Your task to perform on an android device: read, delete, or share a saved page in the chrome app Image 0: 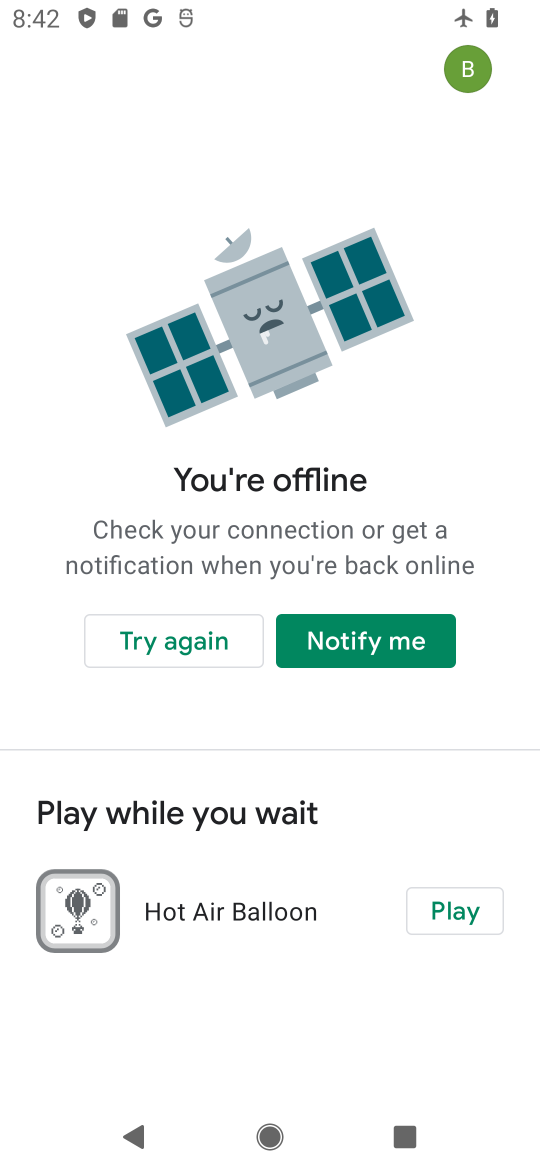
Step 0: press home button
Your task to perform on an android device: read, delete, or share a saved page in the chrome app Image 1: 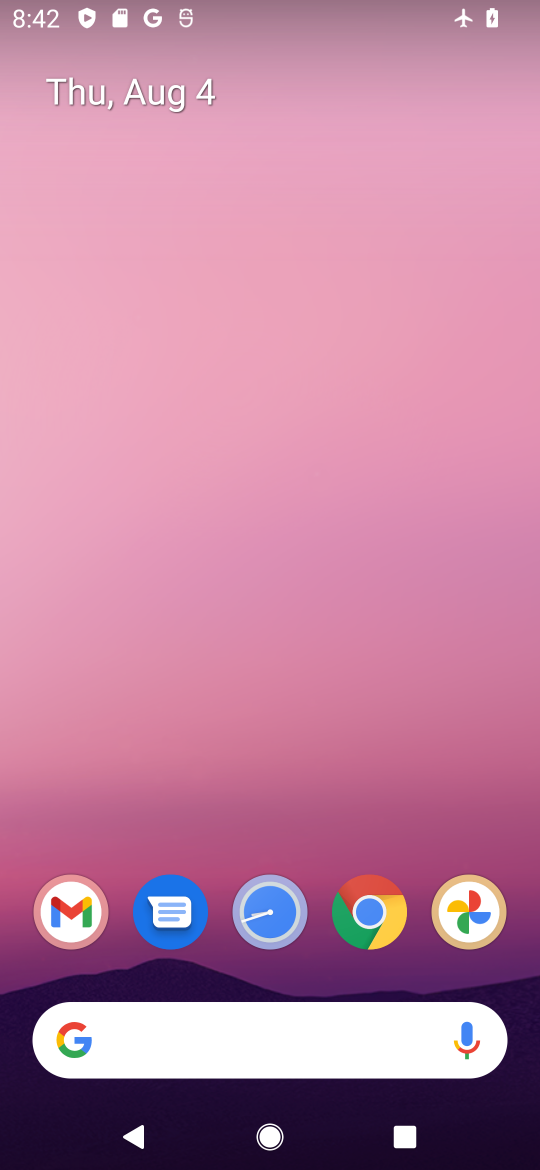
Step 1: click (385, 903)
Your task to perform on an android device: read, delete, or share a saved page in the chrome app Image 2: 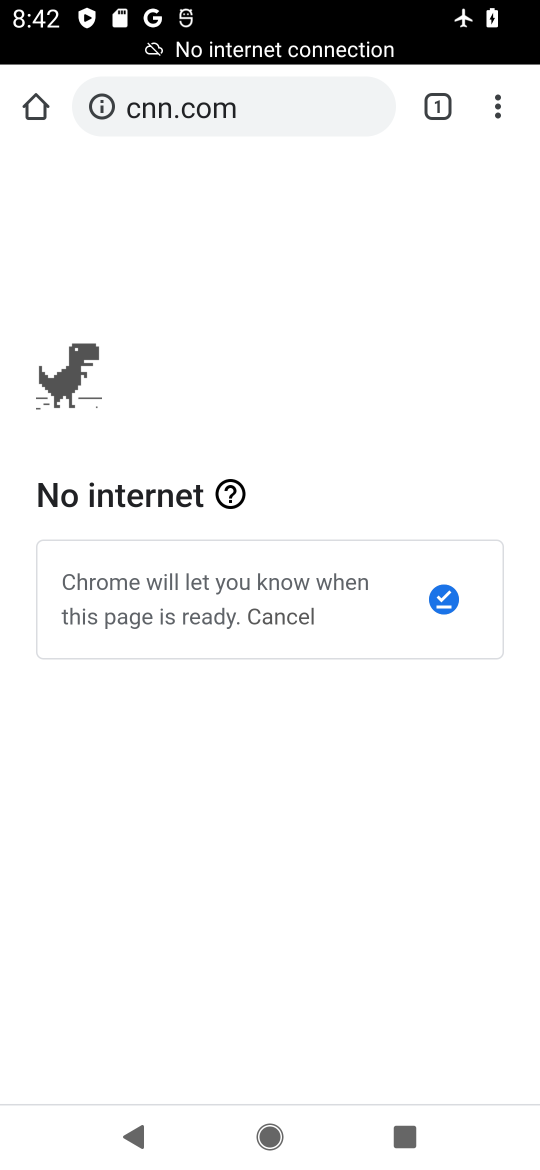
Step 2: click (498, 113)
Your task to perform on an android device: read, delete, or share a saved page in the chrome app Image 3: 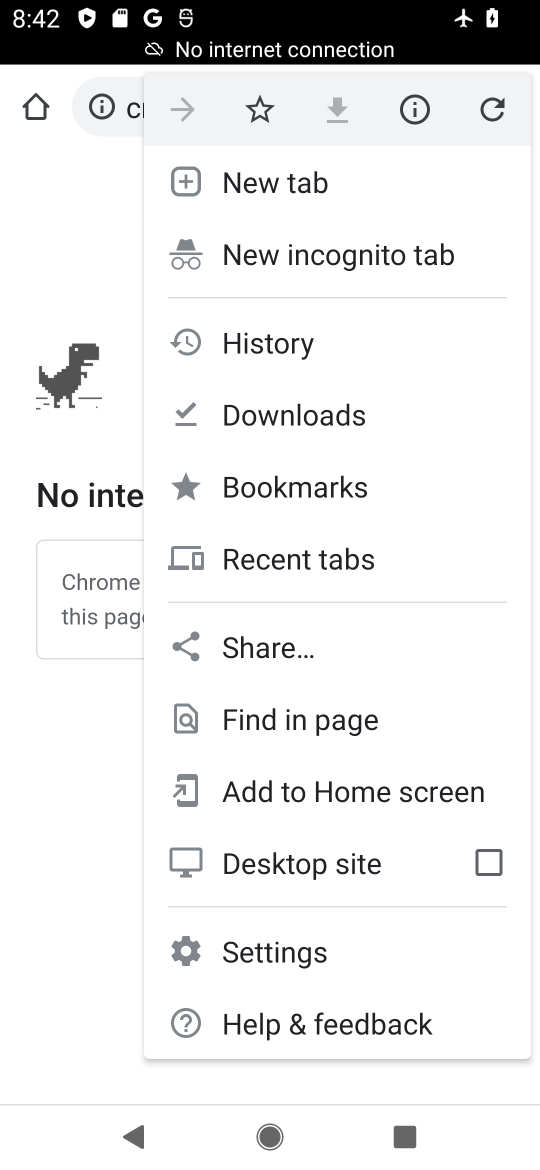
Step 3: click (332, 425)
Your task to perform on an android device: read, delete, or share a saved page in the chrome app Image 4: 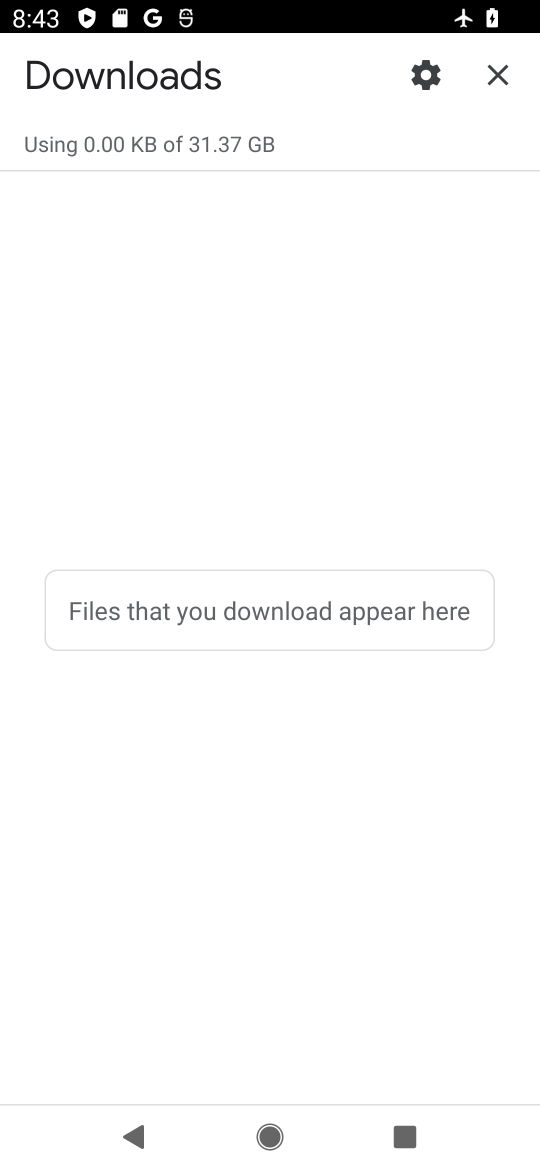
Step 4: click (320, 102)
Your task to perform on an android device: read, delete, or share a saved page in the chrome app Image 5: 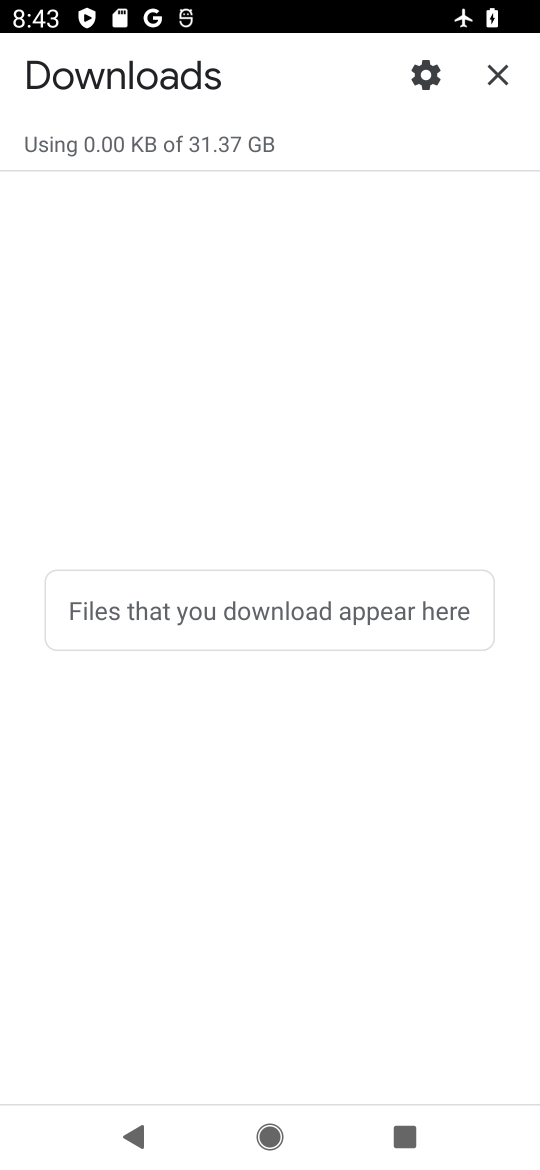
Step 5: click (428, 78)
Your task to perform on an android device: read, delete, or share a saved page in the chrome app Image 6: 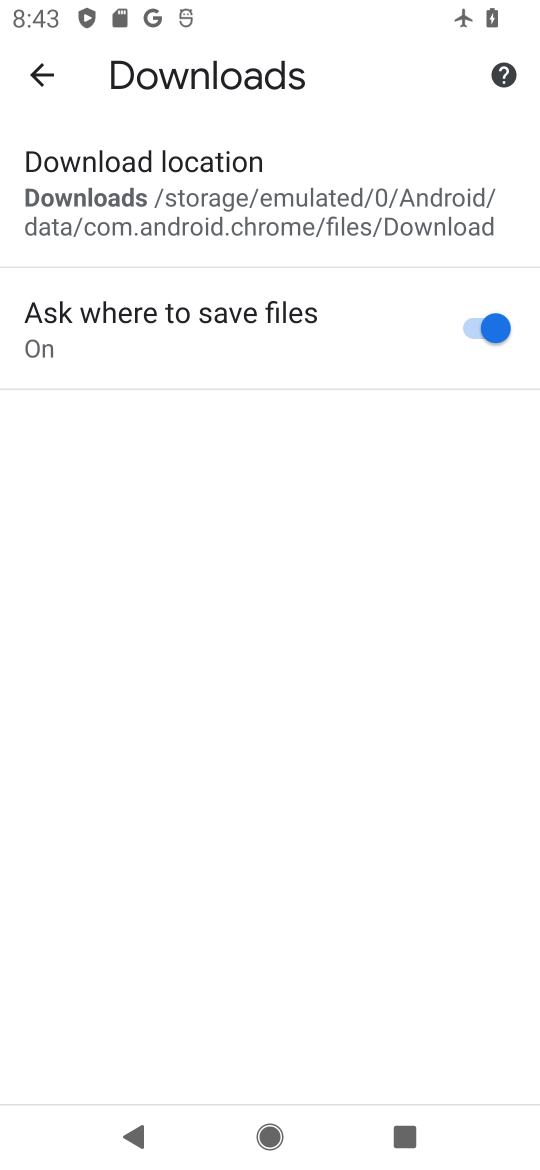
Step 6: task complete